Your task to perform on an android device: Search for pizza restaurants on Maps Image 0: 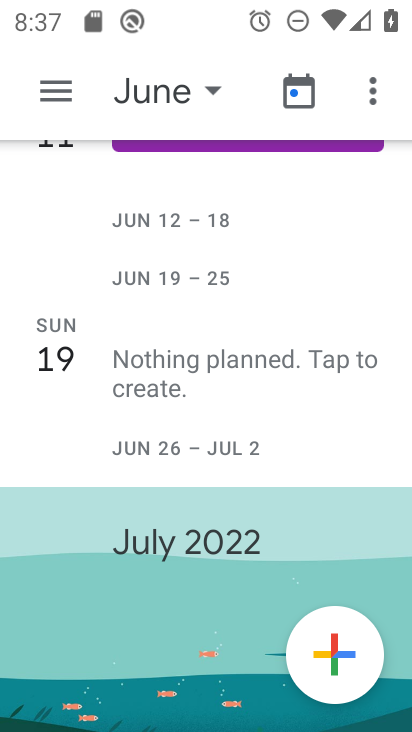
Step 0: press home button
Your task to perform on an android device: Search for pizza restaurants on Maps Image 1: 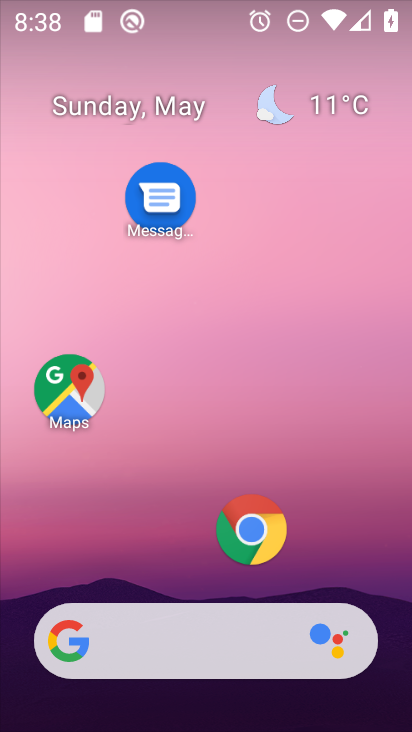
Step 1: click (69, 382)
Your task to perform on an android device: Search for pizza restaurants on Maps Image 2: 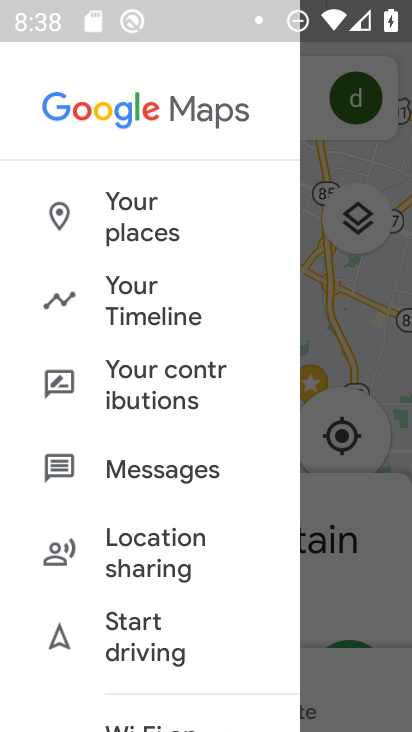
Step 2: click (363, 246)
Your task to perform on an android device: Search for pizza restaurants on Maps Image 3: 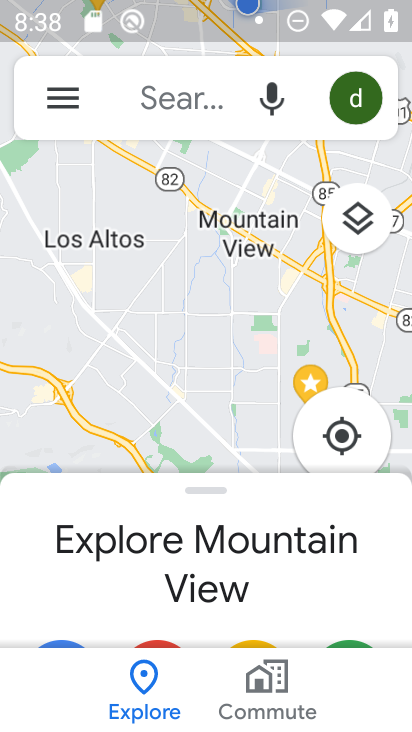
Step 3: click (178, 104)
Your task to perform on an android device: Search for pizza restaurants on Maps Image 4: 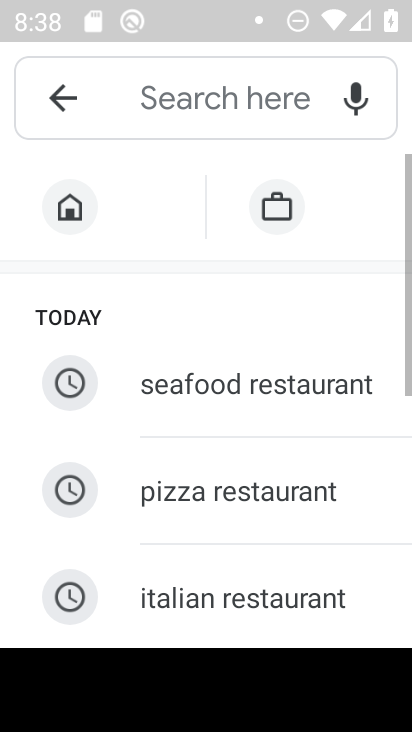
Step 4: click (192, 482)
Your task to perform on an android device: Search for pizza restaurants on Maps Image 5: 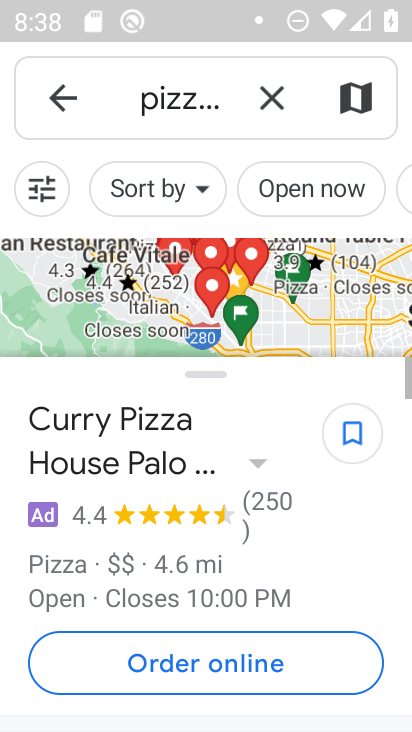
Step 5: task complete